Your task to perform on an android device: star an email in the gmail app Image 0: 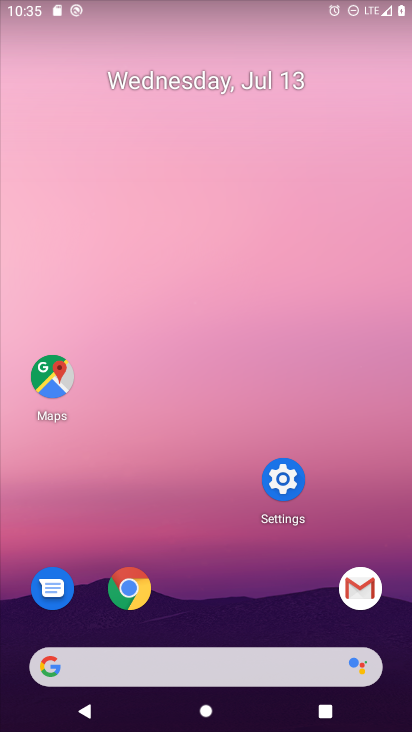
Step 0: click (342, 582)
Your task to perform on an android device: star an email in the gmail app Image 1: 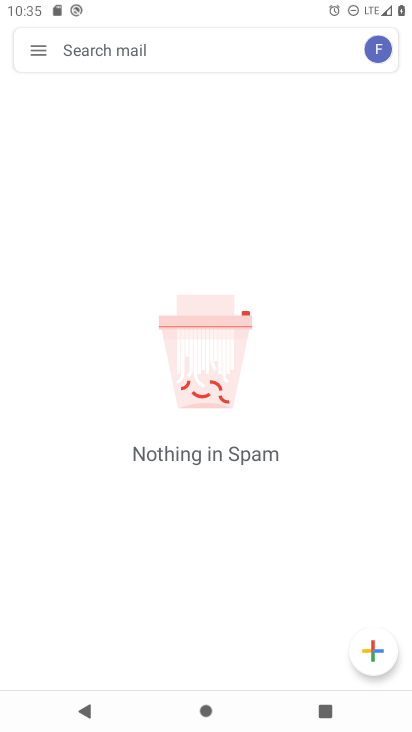
Step 1: click (36, 58)
Your task to perform on an android device: star an email in the gmail app Image 2: 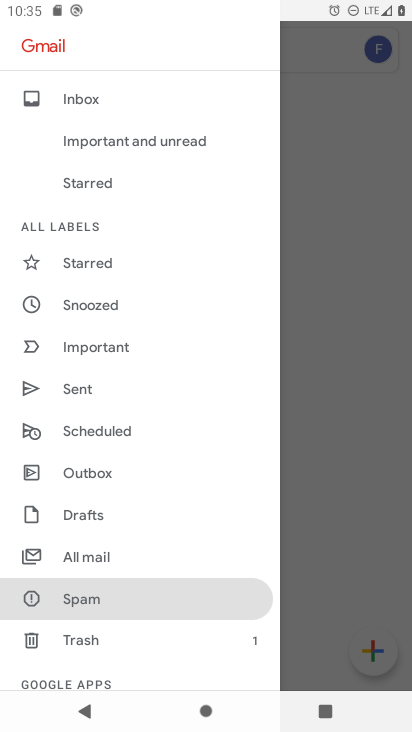
Step 2: click (115, 182)
Your task to perform on an android device: star an email in the gmail app Image 3: 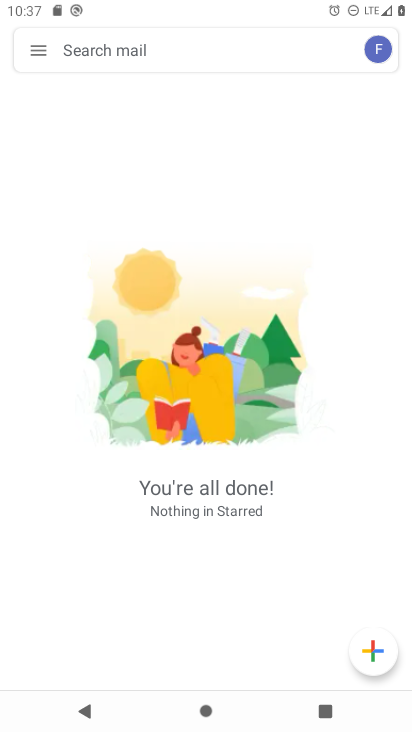
Step 3: task complete